Your task to perform on an android device: Open wifi settings Image 0: 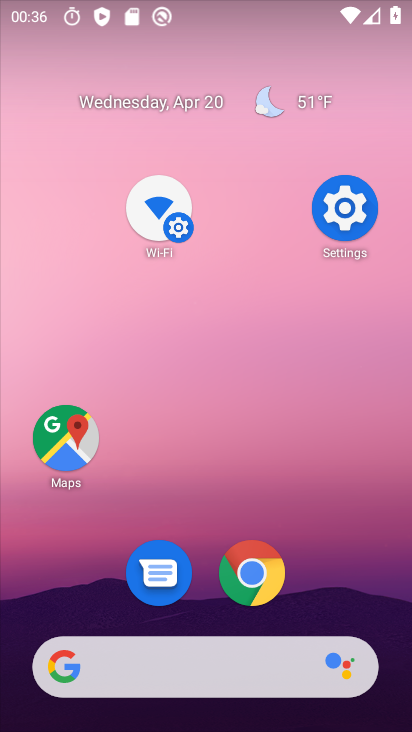
Step 0: click (347, 229)
Your task to perform on an android device: Open wifi settings Image 1: 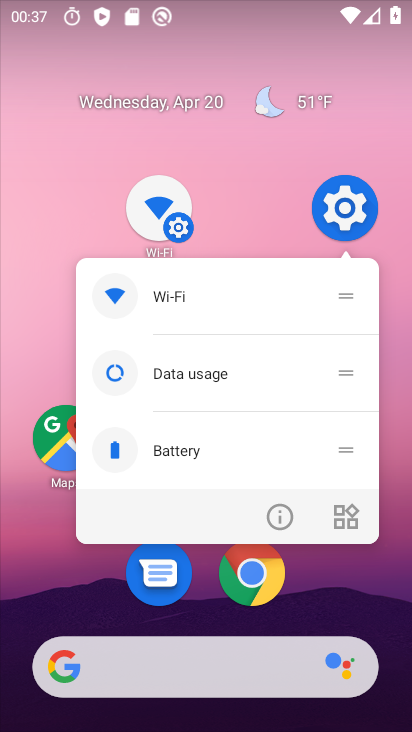
Step 1: click (345, 211)
Your task to perform on an android device: Open wifi settings Image 2: 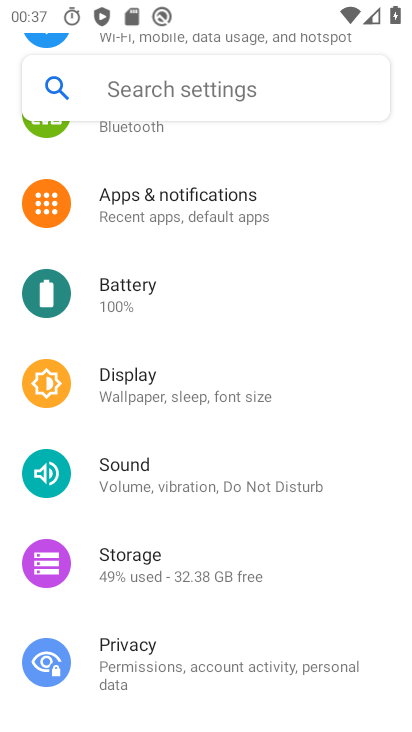
Step 2: drag from (233, 181) to (234, 662)
Your task to perform on an android device: Open wifi settings Image 3: 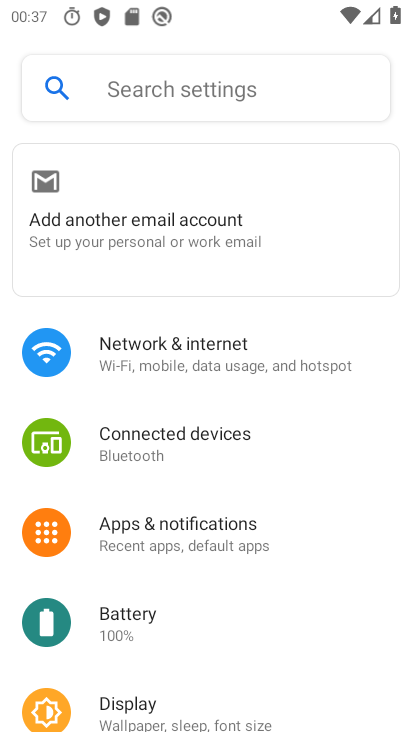
Step 3: click (219, 348)
Your task to perform on an android device: Open wifi settings Image 4: 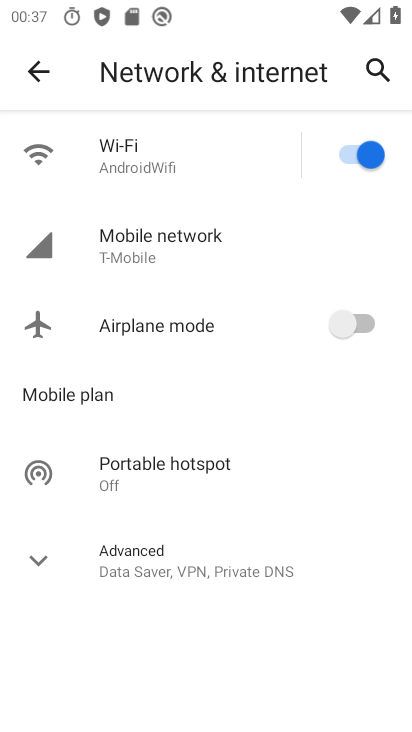
Step 4: click (216, 165)
Your task to perform on an android device: Open wifi settings Image 5: 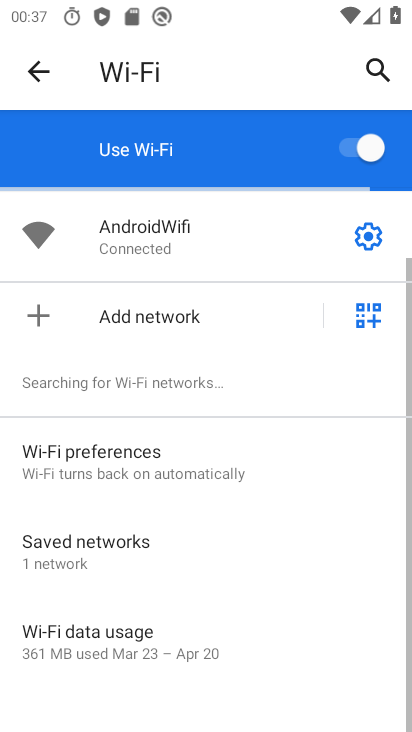
Step 5: task complete